Your task to perform on an android device: Add lenovo thinkpad to the cart on walmart.com, then select checkout. Image 0: 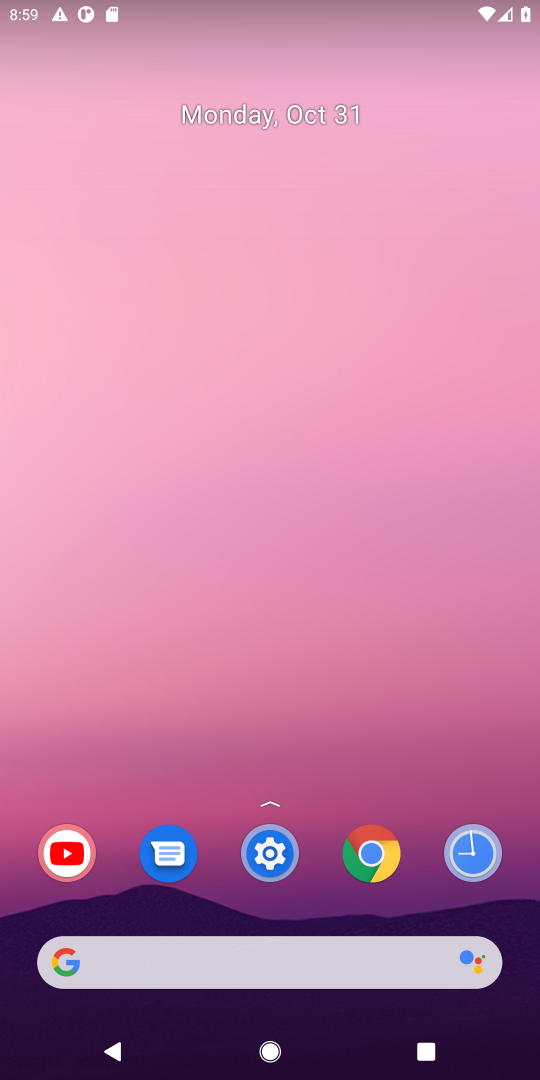
Step 0: click (250, 956)
Your task to perform on an android device: Add lenovo thinkpad to the cart on walmart.com, then select checkout. Image 1: 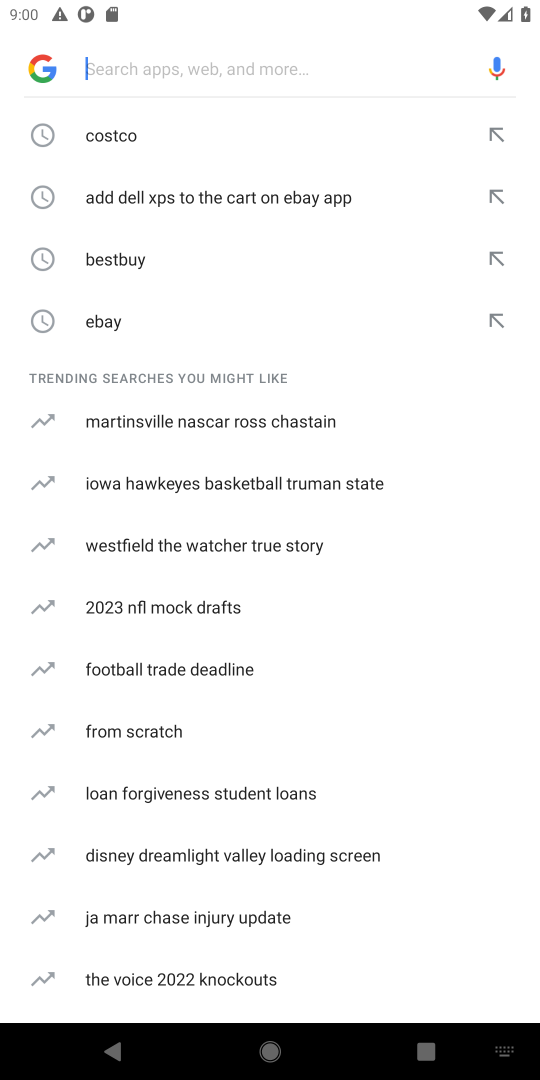
Step 1: type "walmart.com"
Your task to perform on an android device: Add lenovo thinkpad to the cart on walmart.com, then select checkout. Image 2: 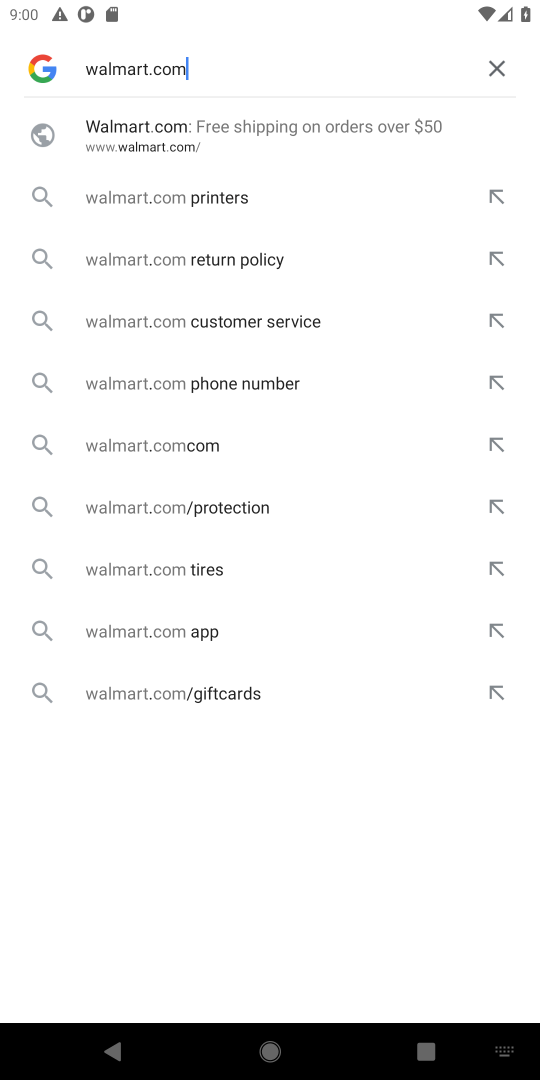
Step 2: click (129, 129)
Your task to perform on an android device: Add lenovo thinkpad to the cart on walmart.com, then select checkout. Image 3: 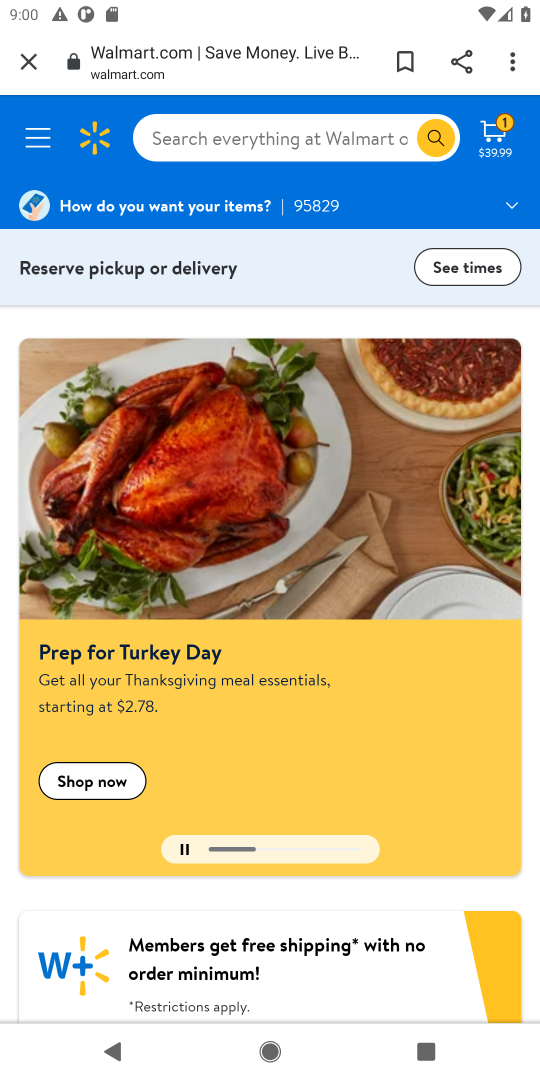
Step 3: click (269, 136)
Your task to perform on an android device: Add lenovo thinkpad to the cart on walmart.com, then select checkout. Image 4: 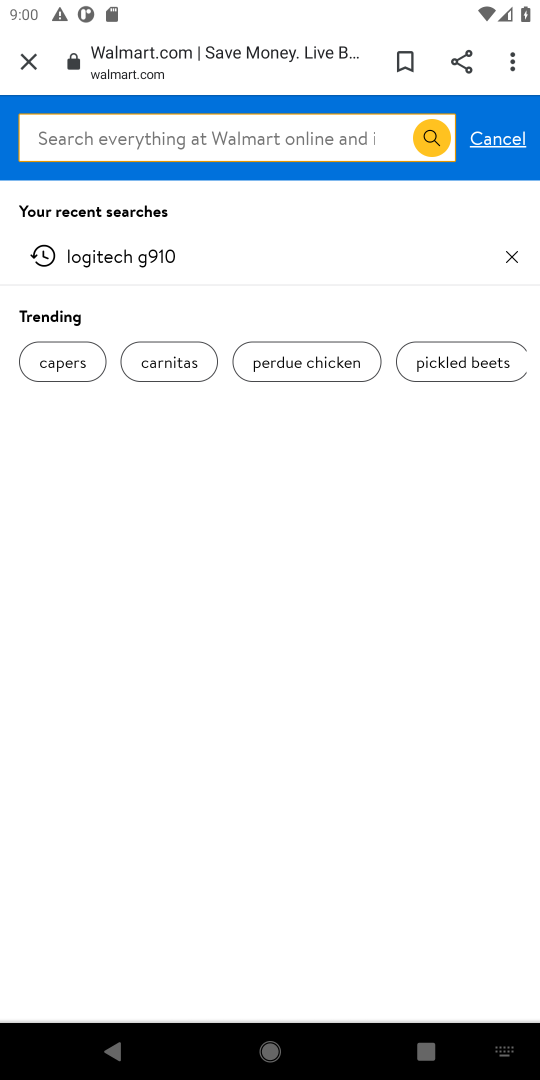
Step 4: type "lenovo thinkpad"
Your task to perform on an android device: Add lenovo thinkpad to the cart on walmart.com, then select checkout. Image 5: 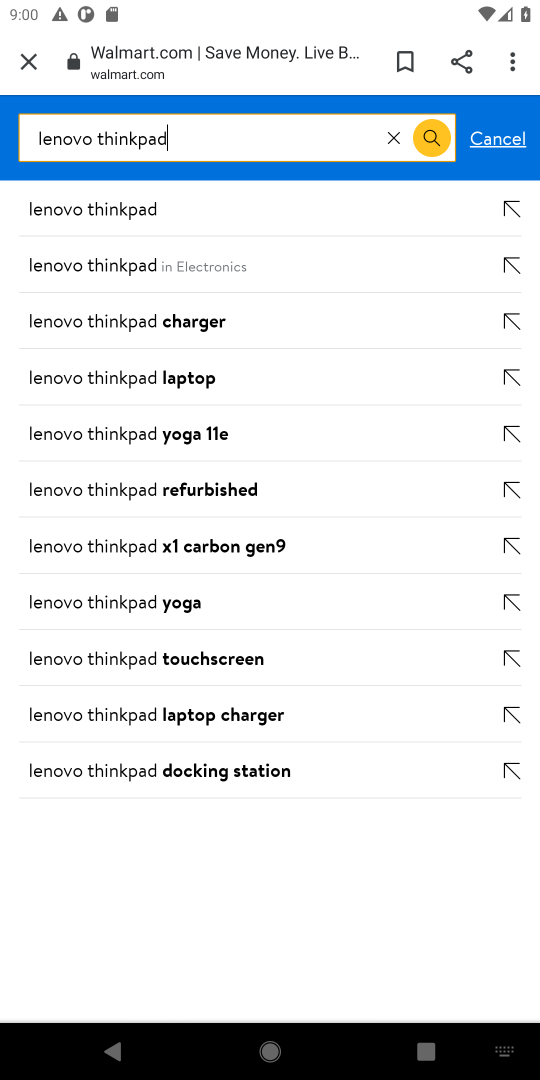
Step 5: click (150, 201)
Your task to perform on an android device: Add lenovo thinkpad to the cart on walmart.com, then select checkout. Image 6: 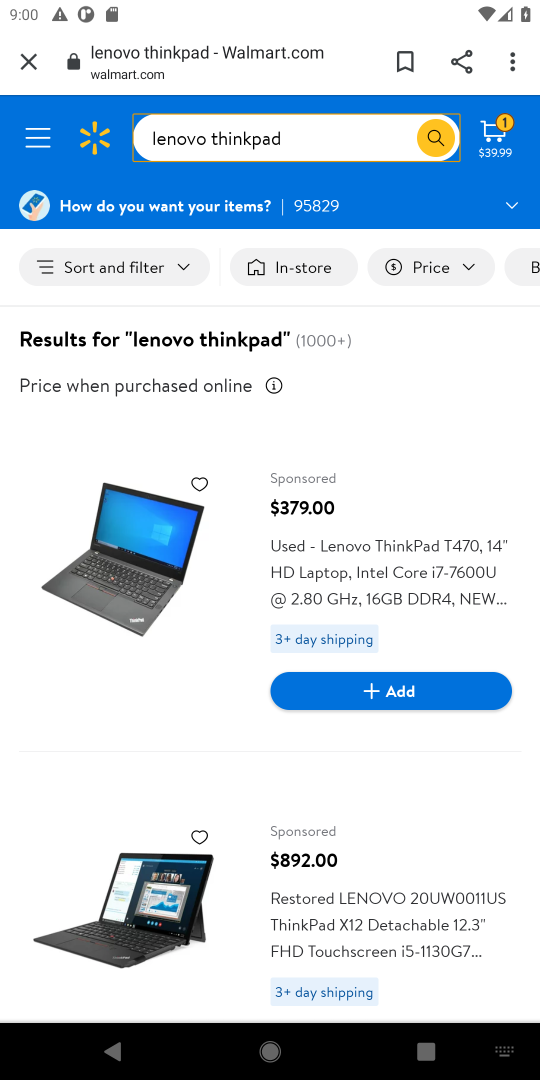
Step 6: click (389, 691)
Your task to perform on an android device: Add lenovo thinkpad to the cart on walmart.com, then select checkout. Image 7: 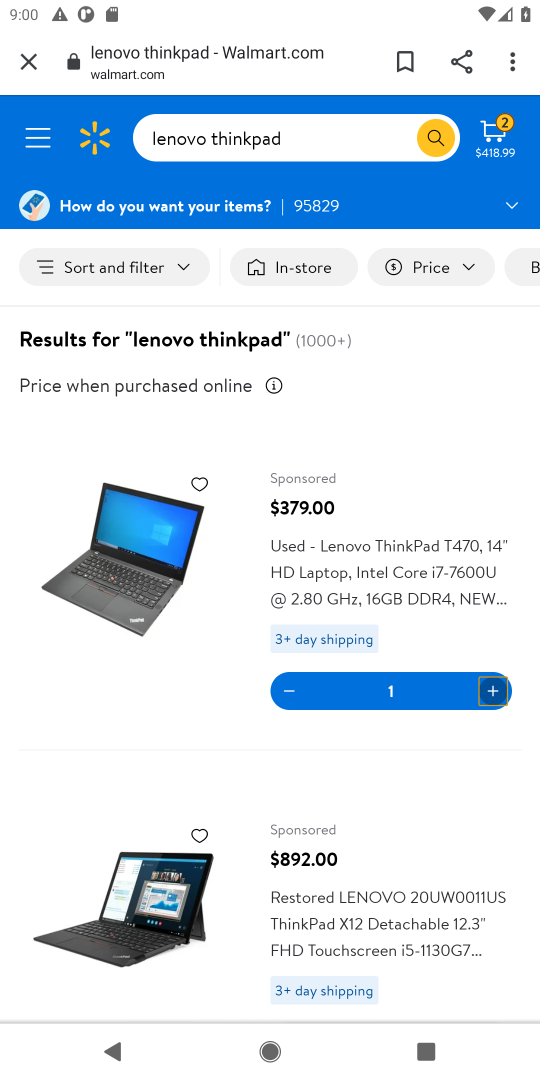
Step 7: click (499, 125)
Your task to perform on an android device: Add lenovo thinkpad to the cart on walmart.com, then select checkout. Image 8: 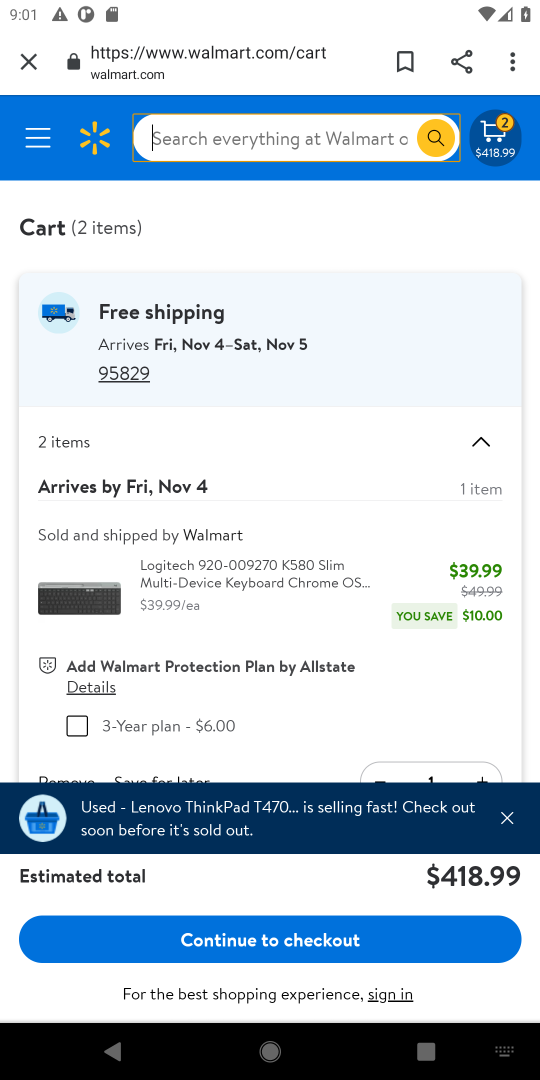
Step 8: click (291, 949)
Your task to perform on an android device: Add lenovo thinkpad to the cart on walmart.com, then select checkout. Image 9: 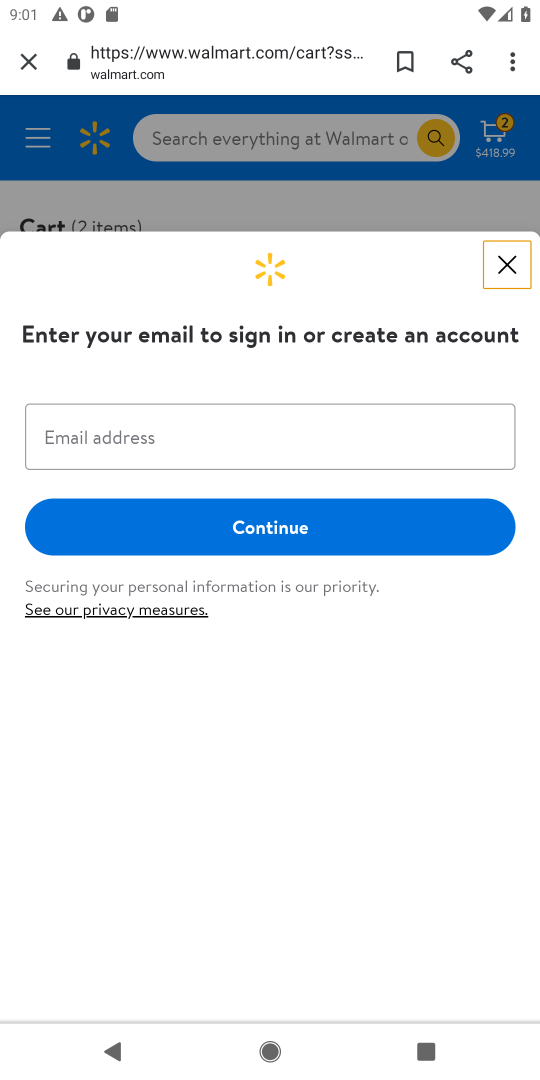
Step 9: task complete